Your task to perform on an android device: change notification settings in the gmail app Image 0: 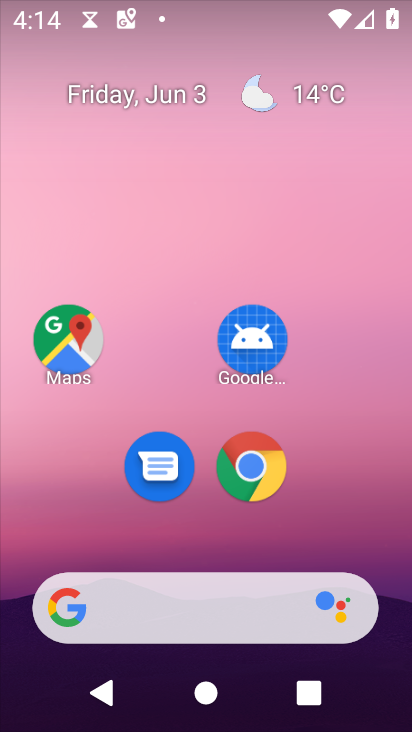
Step 0: click (321, 450)
Your task to perform on an android device: change notification settings in the gmail app Image 1: 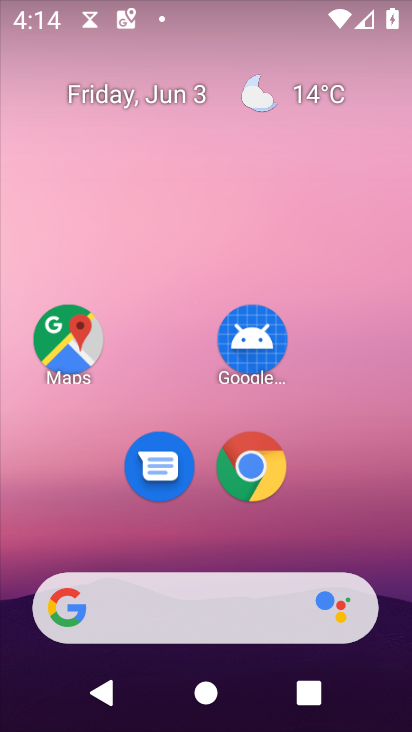
Step 1: drag from (354, 465) to (362, 147)
Your task to perform on an android device: change notification settings in the gmail app Image 2: 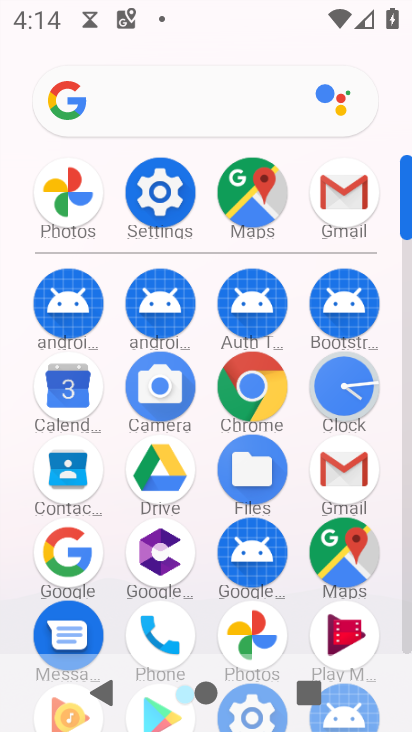
Step 2: click (330, 208)
Your task to perform on an android device: change notification settings in the gmail app Image 3: 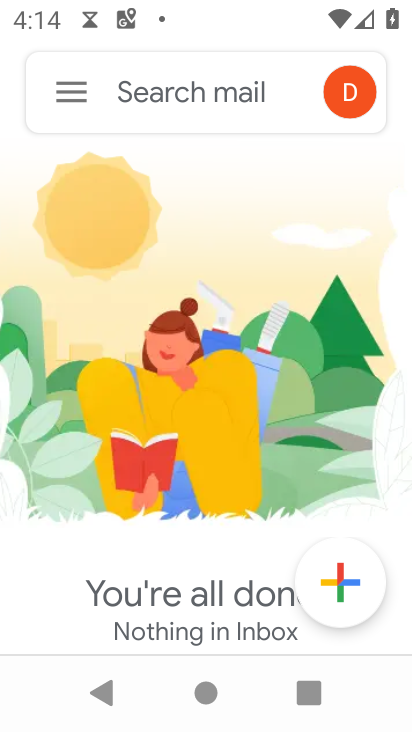
Step 3: click (62, 98)
Your task to perform on an android device: change notification settings in the gmail app Image 4: 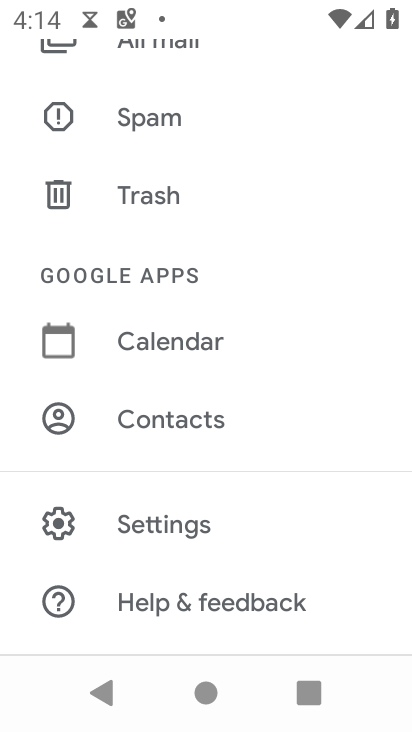
Step 4: click (193, 526)
Your task to perform on an android device: change notification settings in the gmail app Image 5: 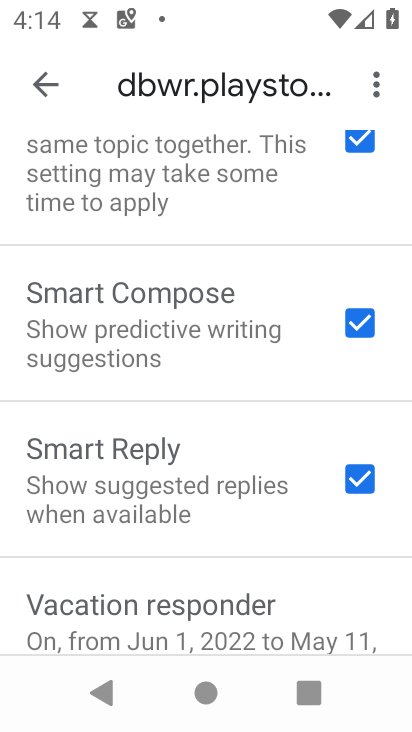
Step 5: drag from (258, 604) to (252, 492)
Your task to perform on an android device: change notification settings in the gmail app Image 6: 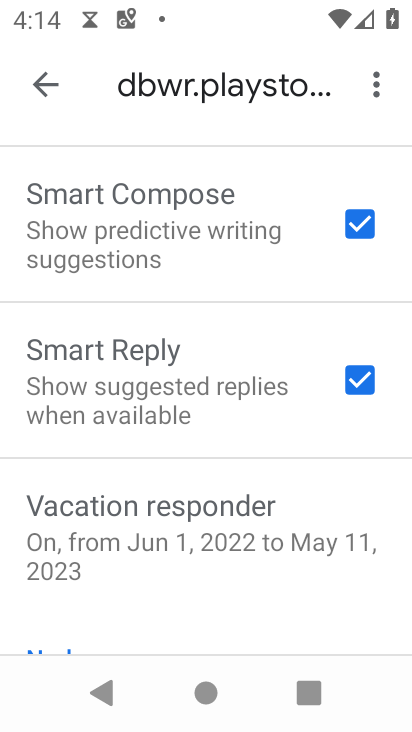
Step 6: drag from (275, 564) to (271, 412)
Your task to perform on an android device: change notification settings in the gmail app Image 7: 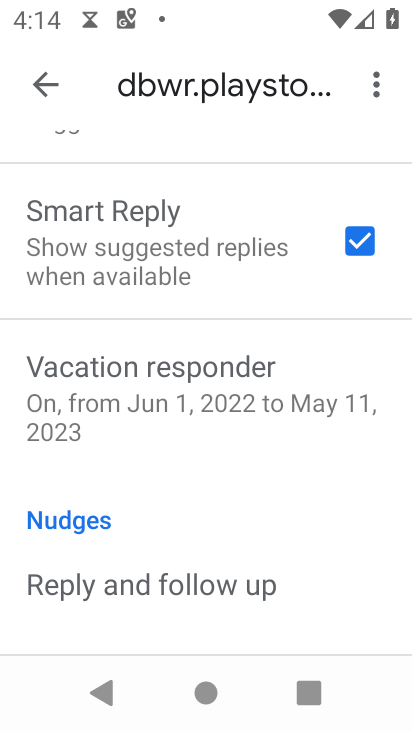
Step 7: drag from (207, 506) to (199, 243)
Your task to perform on an android device: change notification settings in the gmail app Image 8: 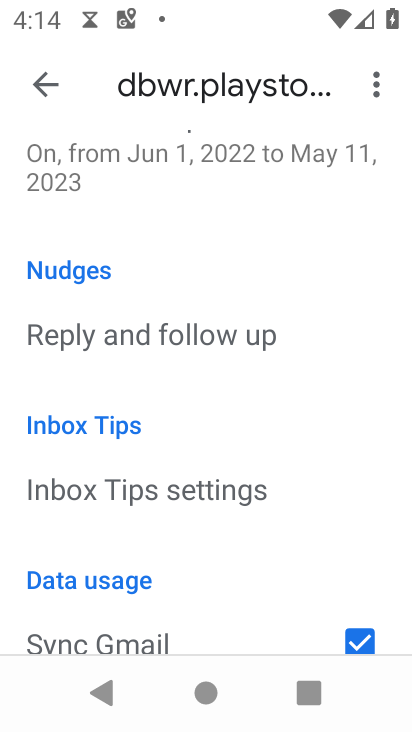
Step 8: click (47, 78)
Your task to perform on an android device: change notification settings in the gmail app Image 9: 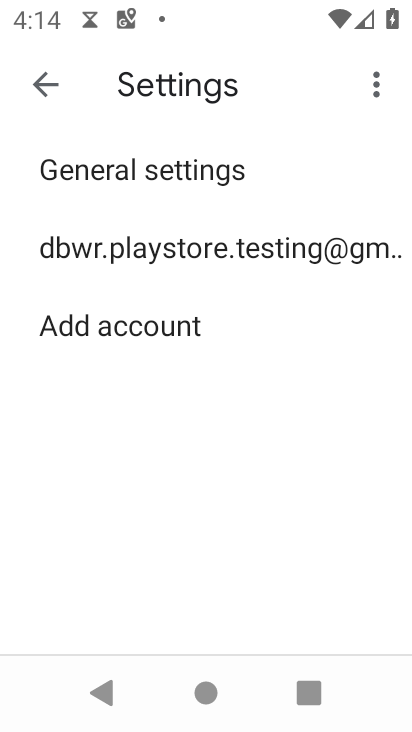
Step 9: click (87, 155)
Your task to perform on an android device: change notification settings in the gmail app Image 10: 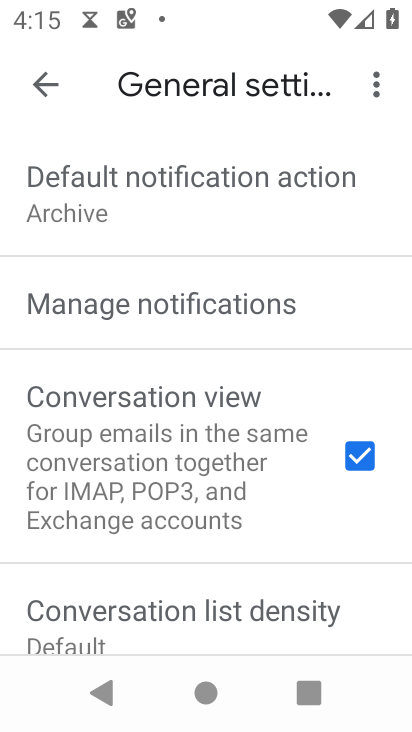
Step 10: click (265, 316)
Your task to perform on an android device: change notification settings in the gmail app Image 11: 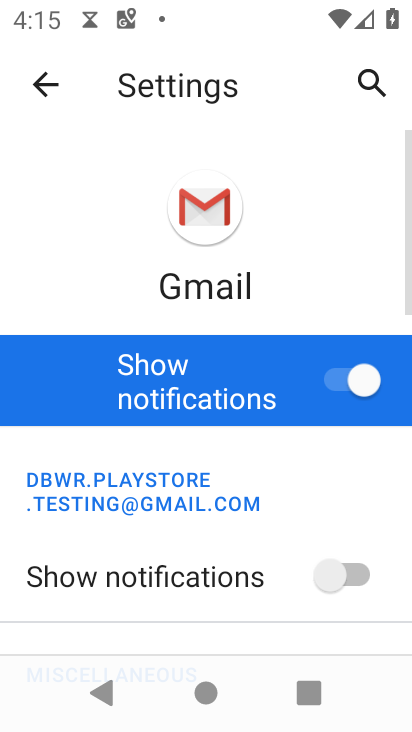
Step 11: click (331, 379)
Your task to perform on an android device: change notification settings in the gmail app Image 12: 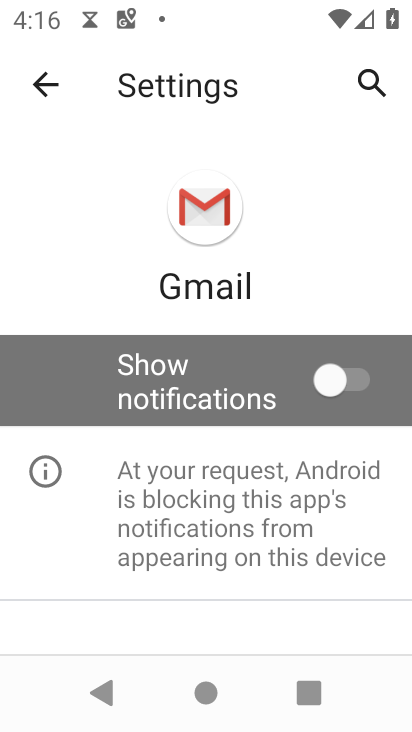
Step 12: task complete